Your task to perform on an android device: open the mobile data screen to see how much data has been used Image 0: 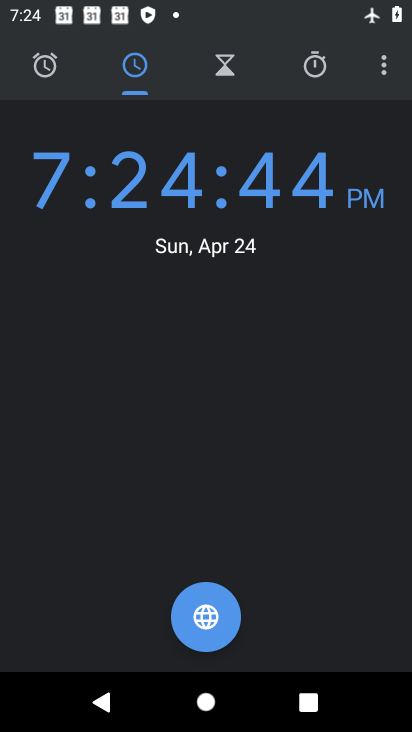
Step 0: press home button
Your task to perform on an android device: open the mobile data screen to see how much data has been used Image 1: 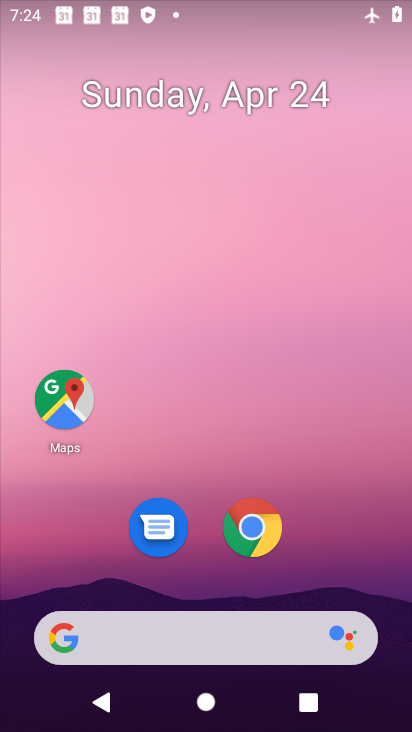
Step 1: drag from (358, 583) to (351, 13)
Your task to perform on an android device: open the mobile data screen to see how much data has been used Image 2: 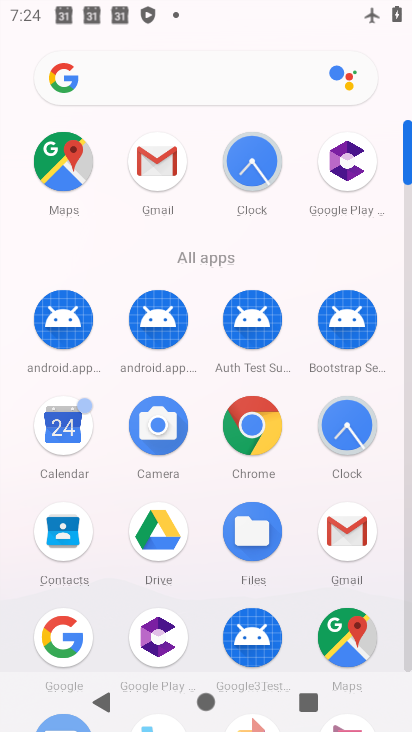
Step 2: click (407, 664)
Your task to perform on an android device: open the mobile data screen to see how much data has been used Image 3: 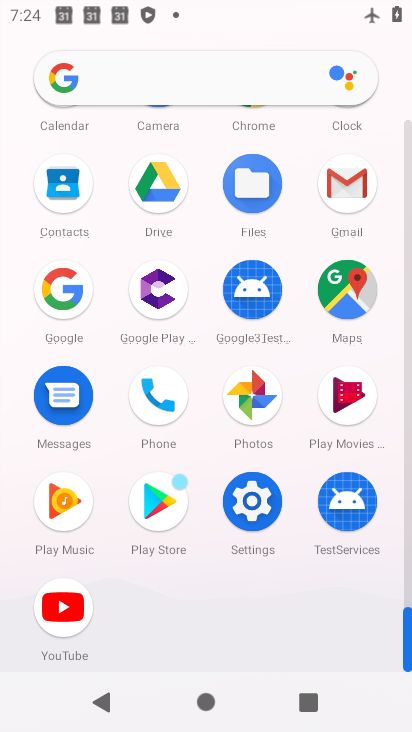
Step 3: click (231, 511)
Your task to perform on an android device: open the mobile data screen to see how much data has been used Image 4: 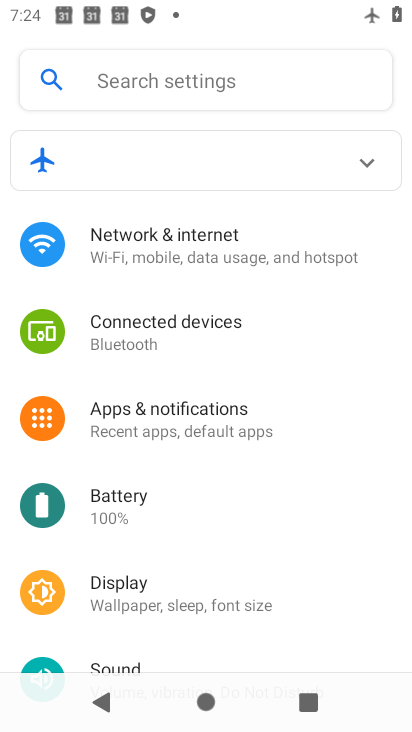
Step 4: click (261, 269)
Your task to perform on an android device: open the mobile data screen to see how much data has been used Image 5: 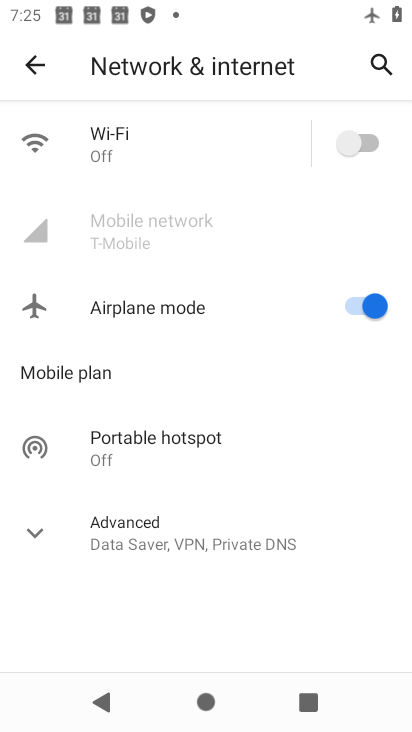
Step 5: task complete